Your task to perform on an android device: Open Chrome and go to settings Image 0: 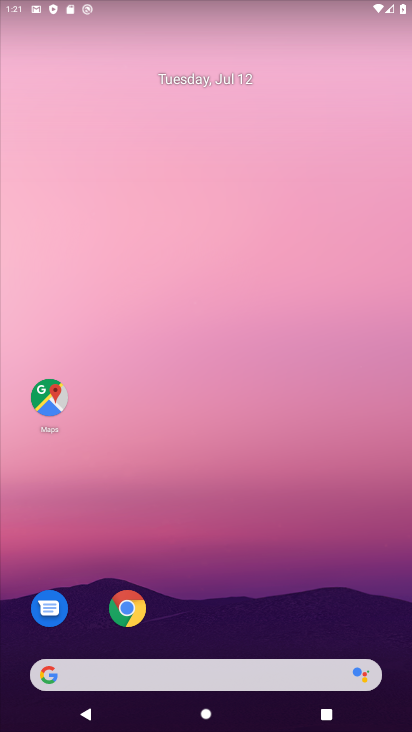
Step 0: click (136, 600)
Your task to perform on an android device: Open Chrome and go to settings Image 1: 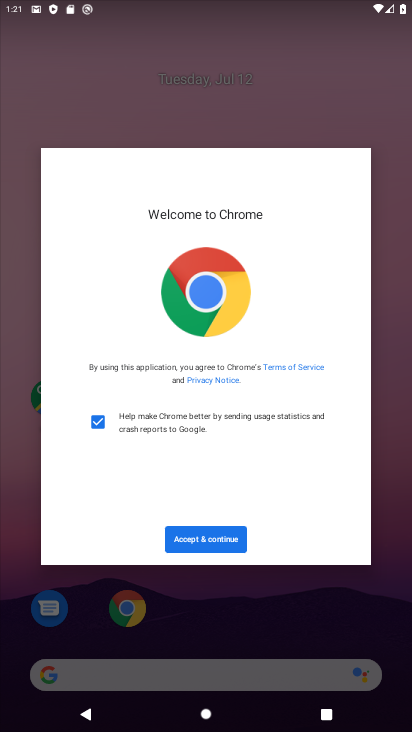
Step 1: click (229, 530)
Your task to perform on an android device: Open Chrome and go to settings Image 2: 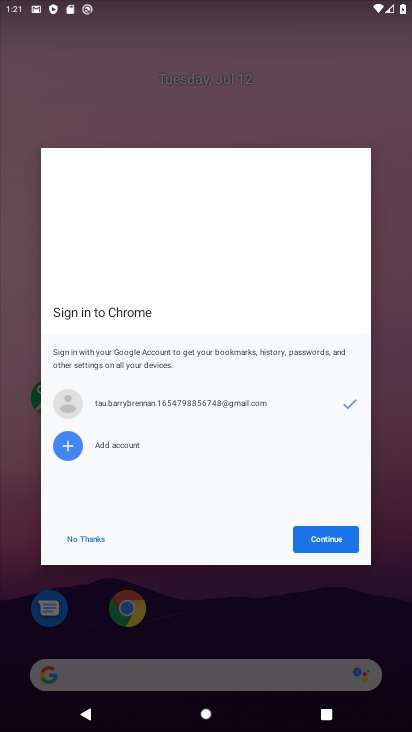
Step 2: click (307, 537)
Your task to perform on an android device: Open Chrome and go to settings Image 3: 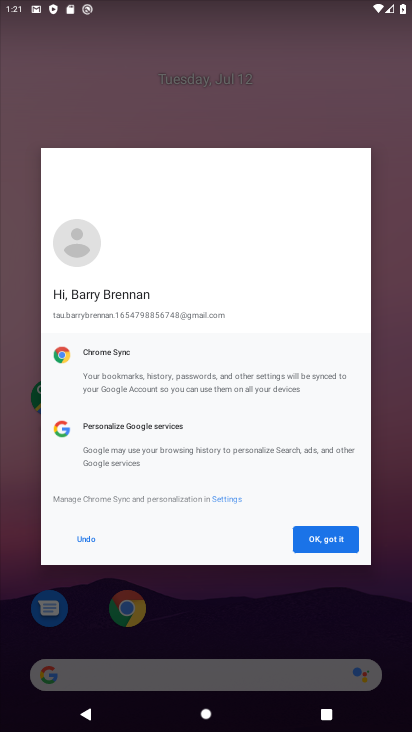
Step 3: click (343, 541)
Your task to perform on an android device: Open Chrome and go to settings Image 4: 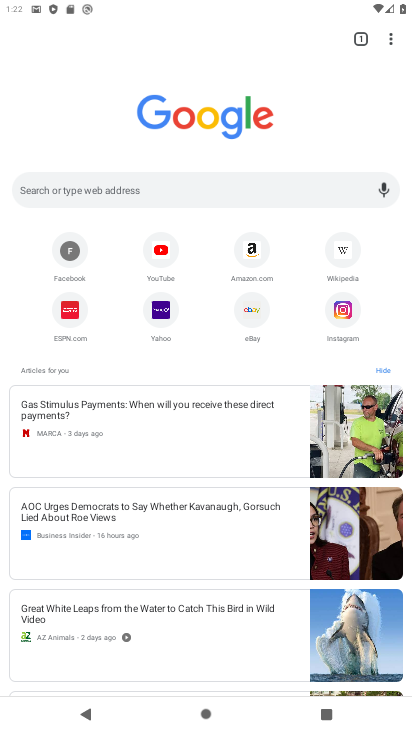
Step 4: click (394, 34)
Your task to perform on an android device: Open Chrome and go to settings Image 5: 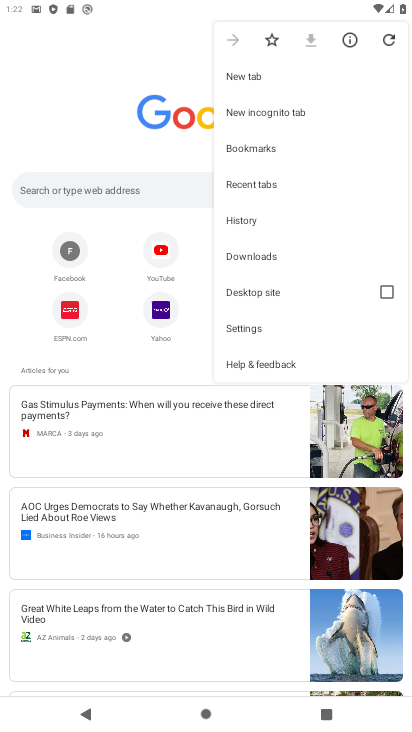
Step 5: click (275, 331)
Your task to perform on an android device: Open Chrome and go to settings Image 6: 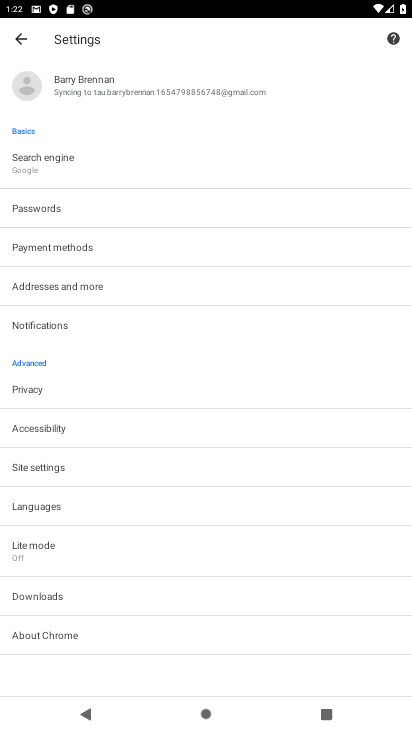
Step 6: task complete